Your task to perform on an android device: turn off sleep mode Image 0: 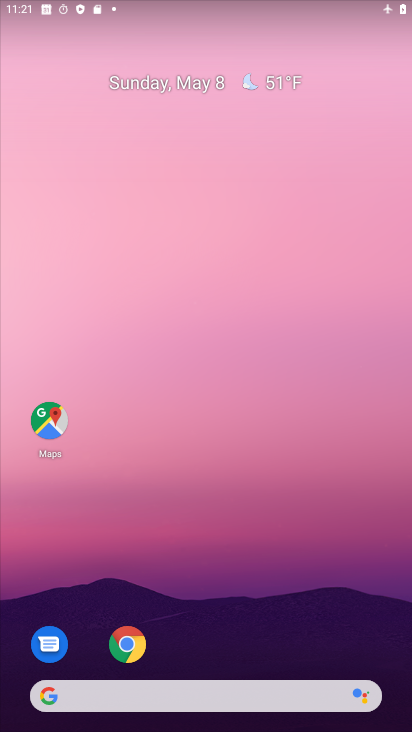
Step 0: drag from (205, 661) to (363, 204)
Your task to perform on an android device: turn off sleep mode Image 1: 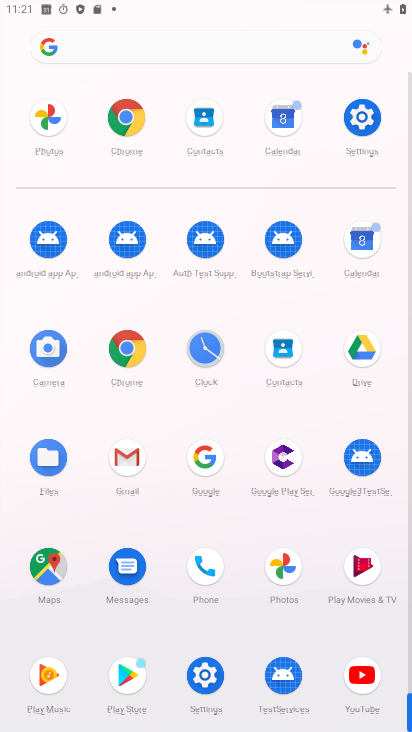
Step 1: click (199, 686)
Your task to perform on an android device: turn off sleep mode Image 2: 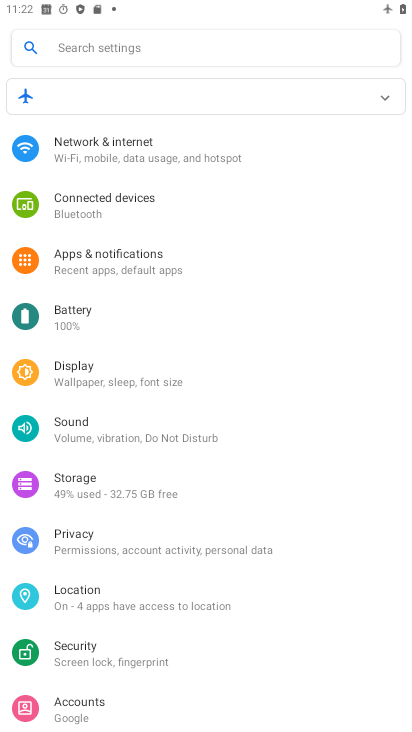
Step 2: click (122, 374)
Your task to perform on an android device: turn off sleep mode Image 3: 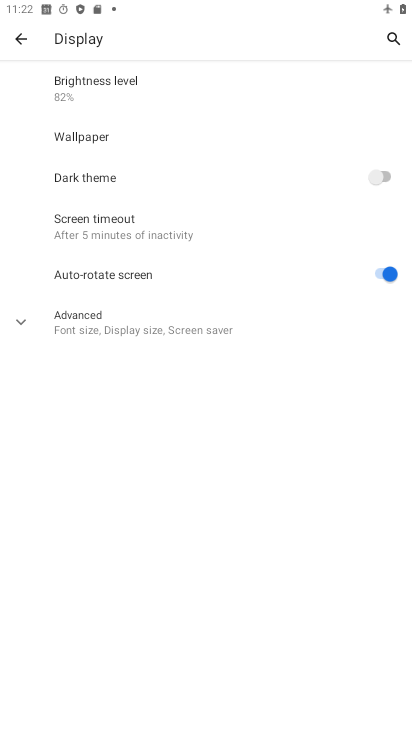
Step 3: click (177, 231)
Your task to perform on an android device: turn off sleep mode Image 4: 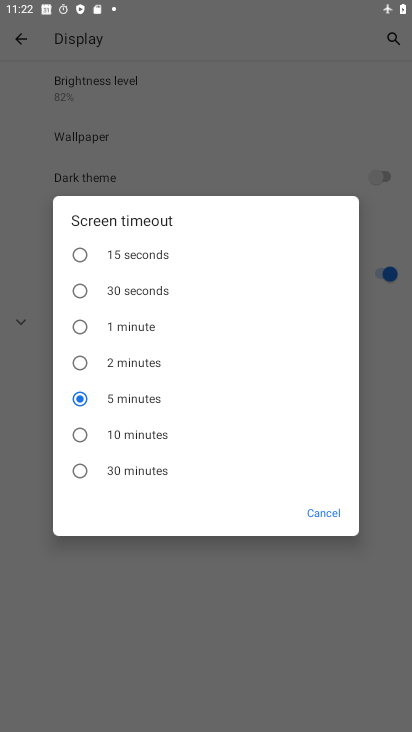
Step 4: task complete